Your task to perform on an android device: Go to Amazon Image 0: 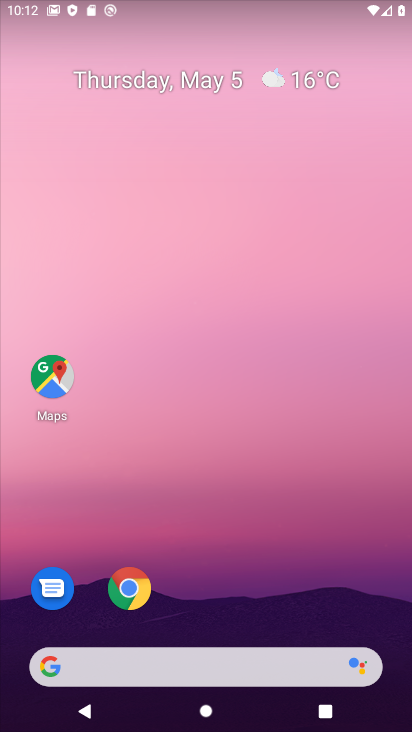
Step 0: drag from (250, 568) to (248, 511)
Your task to perform on an android device: Go to Amazon Image 1: 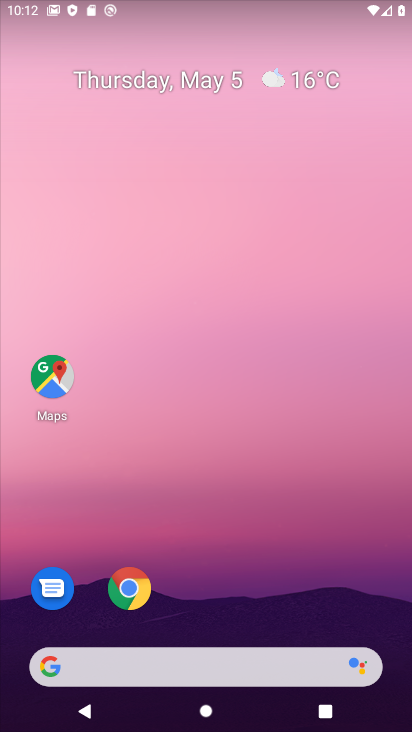
Step 1: click (126, 576)
Your task to perform on an android device: Go to Amazon Image 2: 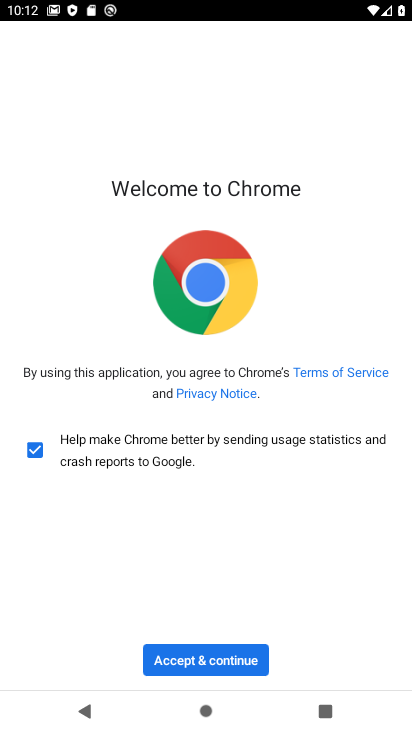
Step 2: click (210, 649)
Your task to perform on an android device: Go to Amazon Image 3: 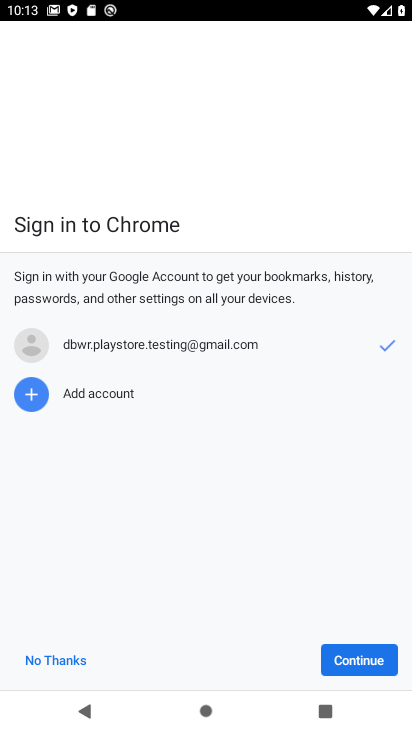
Step 3: click (365, 652)
Your task to perform on an android device: Go to Amazon Image 4: 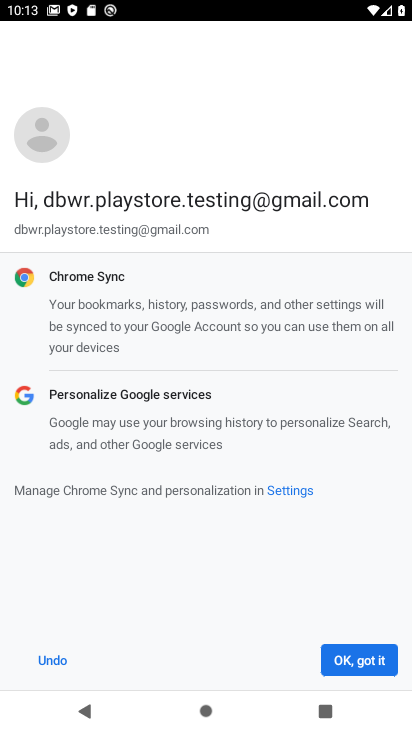
Step 4: click (365, 652)
Your task to perform on an android device: Go to Amazon Image 5: 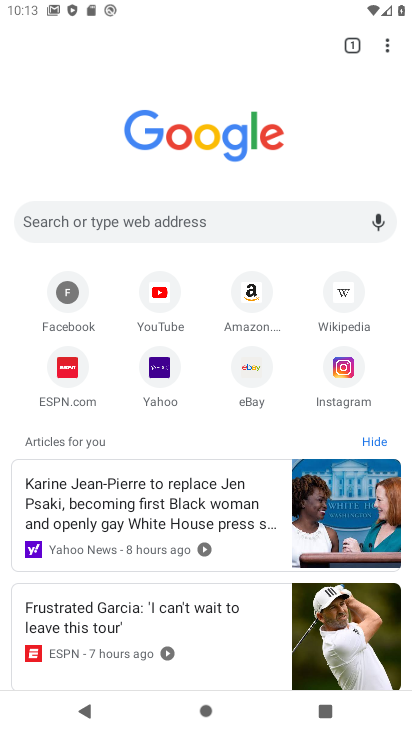
Step 5: click (251, 315)
Your task to perform on an android device: Go to Amazon Image 6: 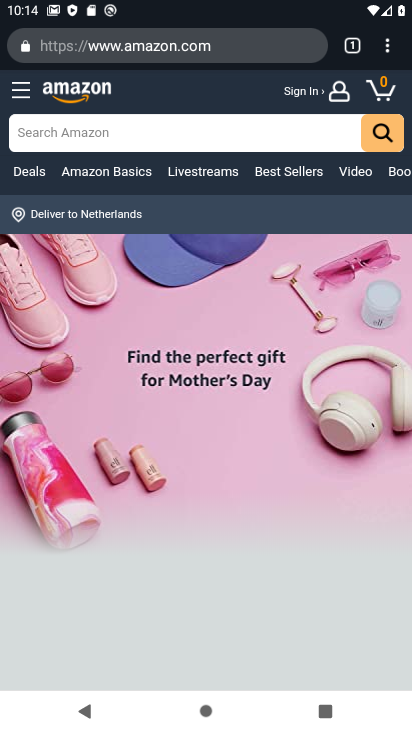
Step 6: task complete